Your task to perform on an android device: check battery use Image 0: 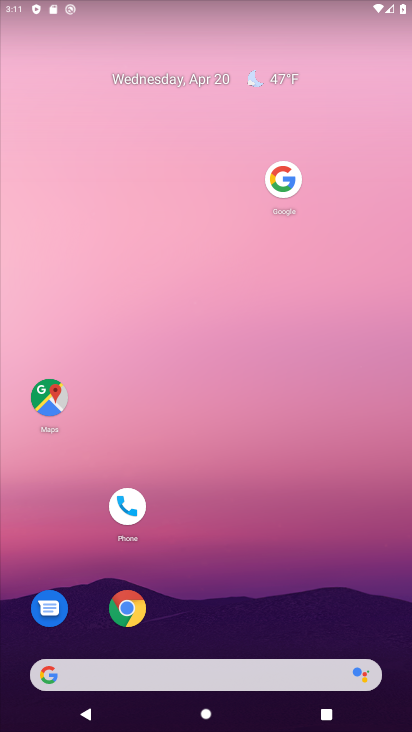
Step 0: drag from (255, 604) to (370, 40)
Your task to perform on an android device: check battery use Image 1: 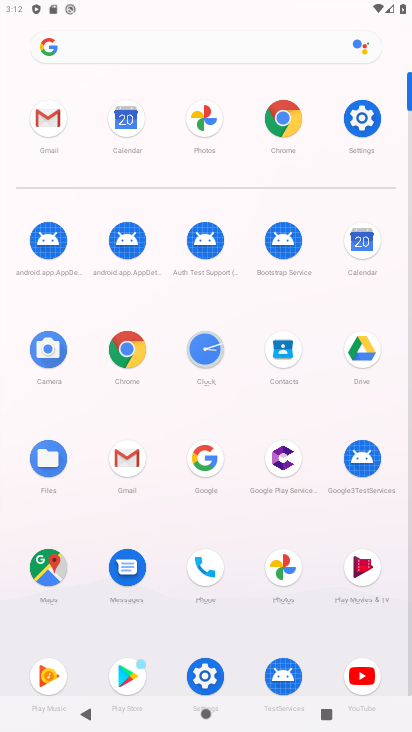
Step 1: click (217, 671)
Your task to perform on an android device: check battery use Image 2: 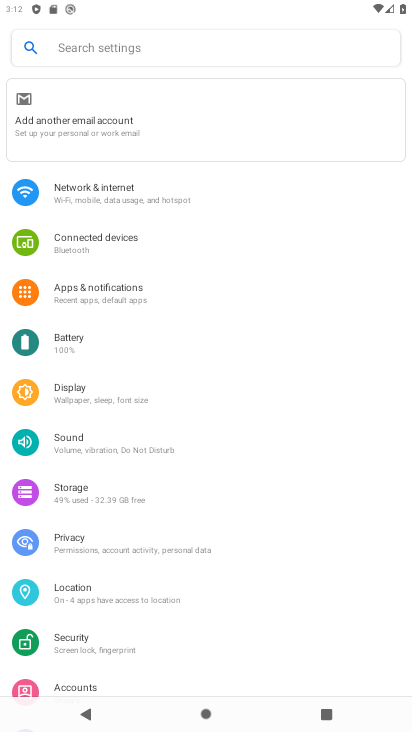
Step 2: click (65, 345)
Your task to perform on an android device: check battery use Image 3: 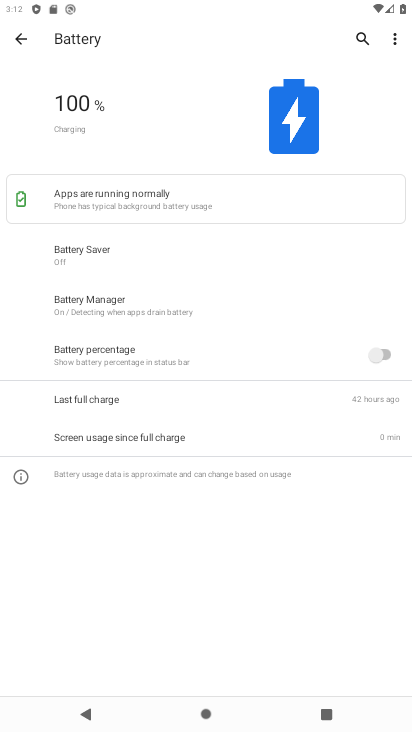
Step 3: click (399, 31)
Your task to perform on an android device: check battery use Image 4: 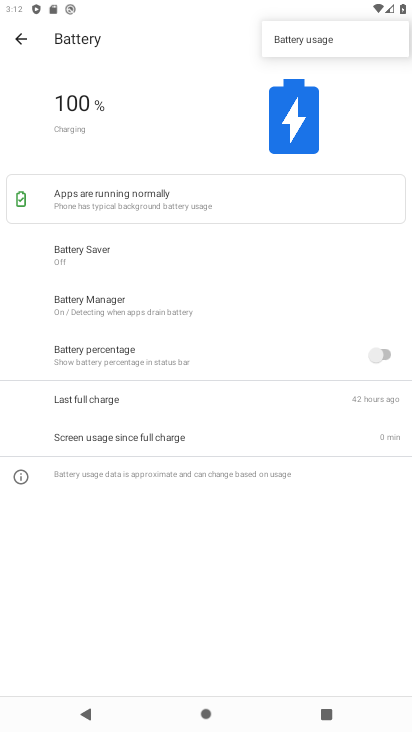
Step 4: click (331, 42)
Your task to perform on an android device: check battery use Image 5: 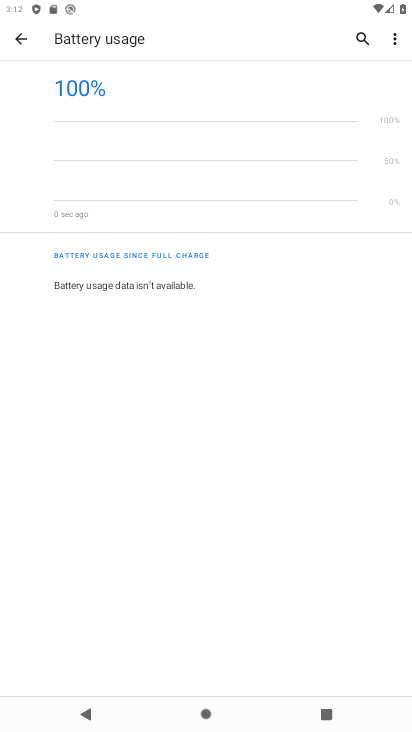
Step 5: task complete